Your task to perform on an android device: Open calendar and show me the fourth week of next month Image 0: 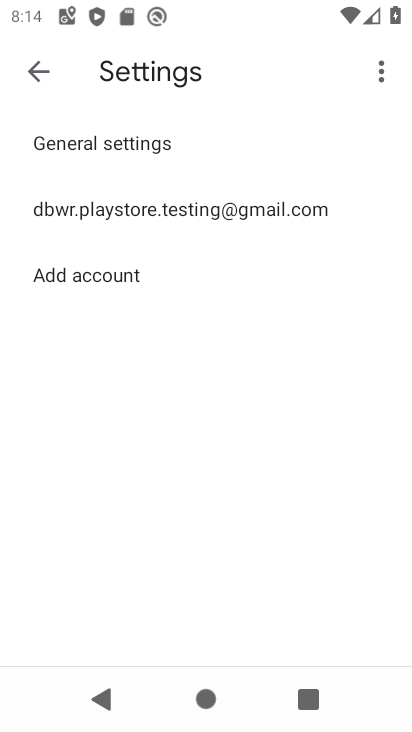
Step 0: press home button
Your task to perform on an android device: Open calendar and show me the fourth week of next month Image 1: 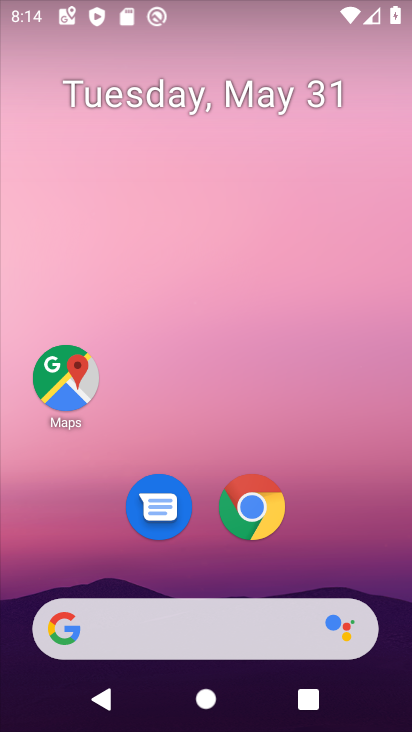
Step 1: drag from (336, 536) to (316, 162)
Your task to perform on an android device: Open calendar and show me the fourth week of next month Image 2: 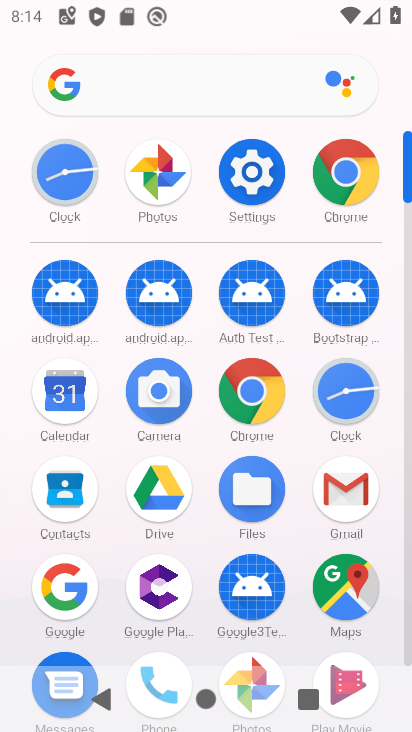
Step 2: click (68, 411)
Your task to perform on an android device: Open calendar and show me the fourth week of next month Image 3: 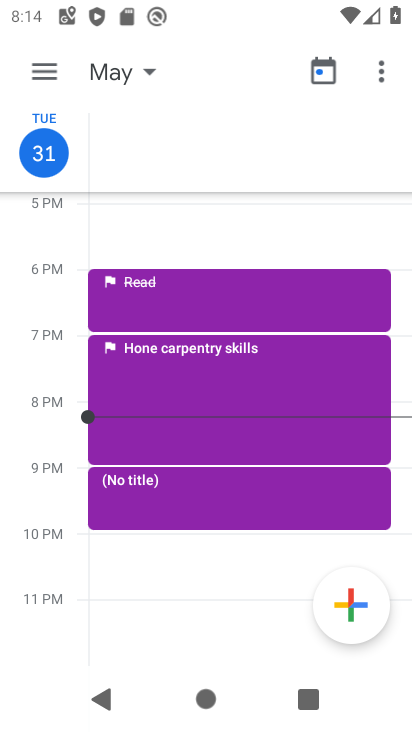
Step 3: click (143, 76)
Your task to perform on an android device: Open calendar and show me the fourth week of next month Image 4: 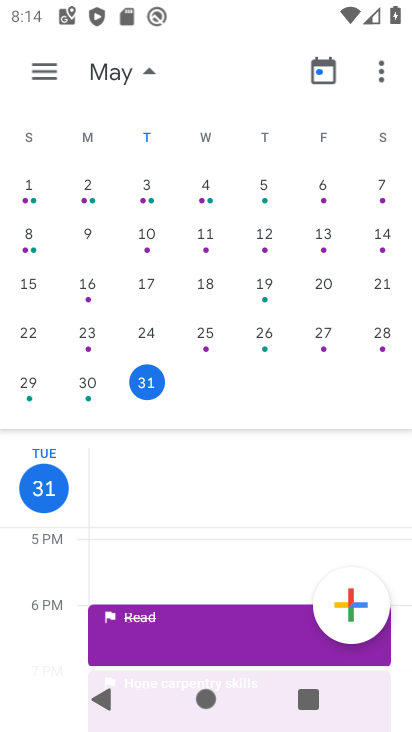
Step 4: drag from (341, 304) to (38, 302)
Your task to perform on an android device: Open calendar and show me the fourth week of next month Image 5: 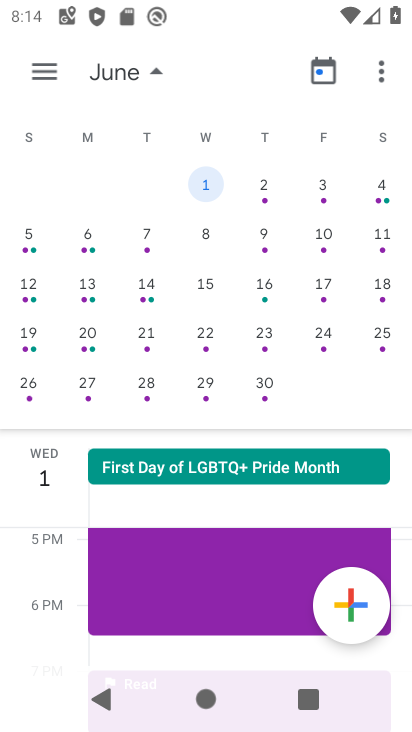
Step 5: click (32, 388)
Your task to perform on an android device: Open calendar and show me the fourth week of next month Image 6: 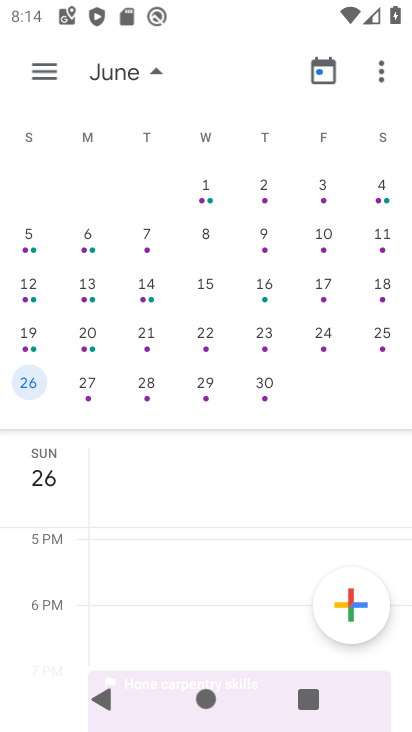
Step 6: click (48, 73)
Your task to perform on an android device: Open calendar and show me the fourth week of next month Image 7: 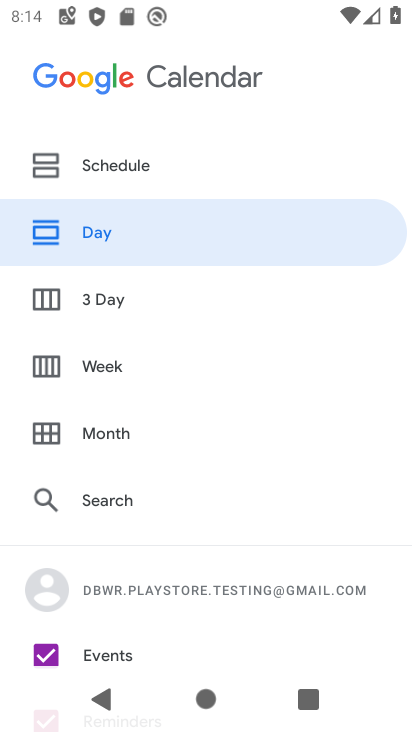
Step 7: click (105, 360)
Your task to perform on an android device: Open calendar and show me the fourth week of next month Image 8: 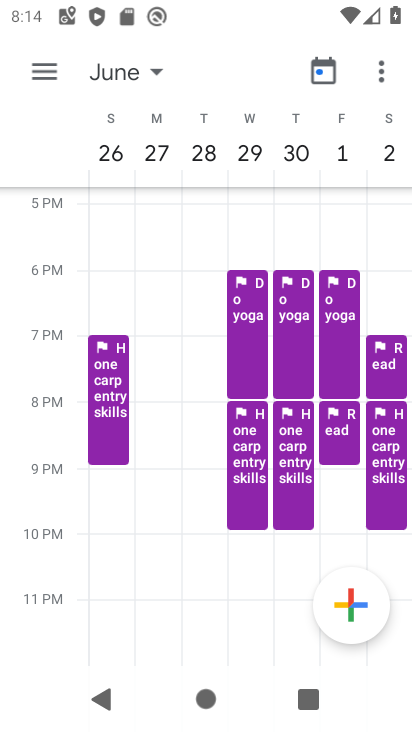
Step 8: task complete